Your task to perform on an android device: turn off picture-in-picture Image 0: 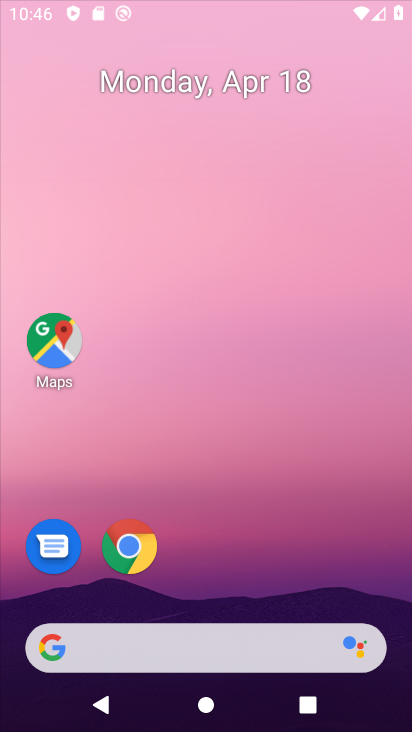
Step 0: click (313, 58)
Your task to perform on an android device: turn off picture-in-picture Image 1: 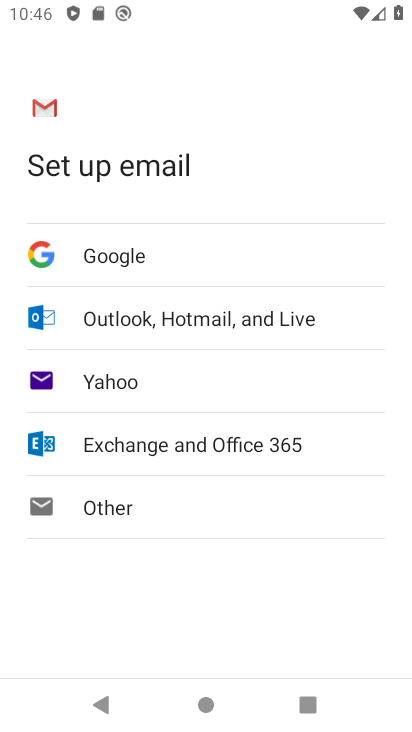
Step 1: press back button
Your task to perform on an android device: turn off picture-in-picture Image 2: 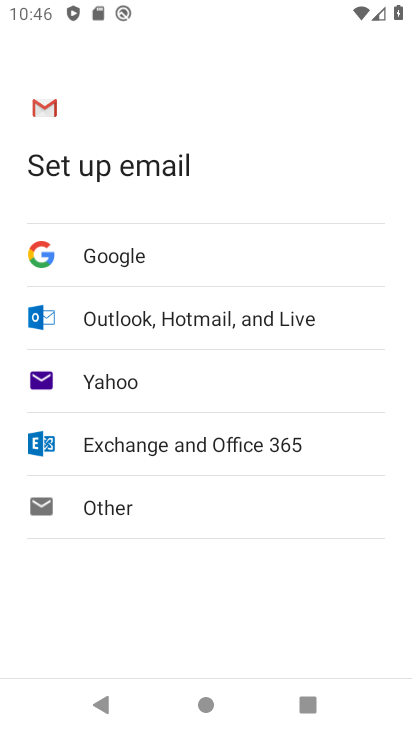
Step 2: press back button
Your task to perform on an android device: turn off picture-in-picture Image 3: 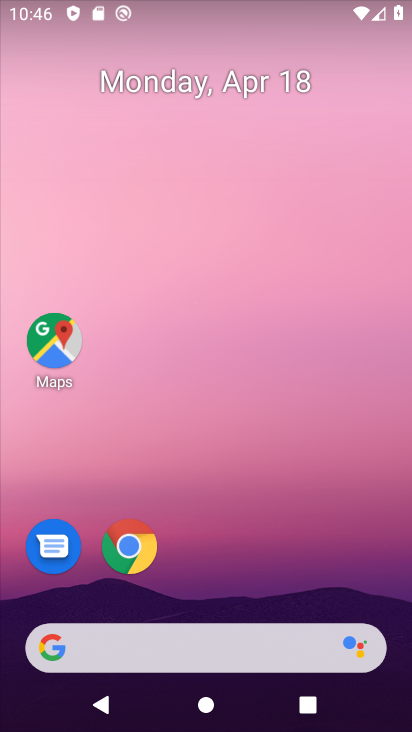
Step 3: drag from (270, 549) to (356, 112)
Your task to perform on an android device: turn off picture-in-picture Image 4: 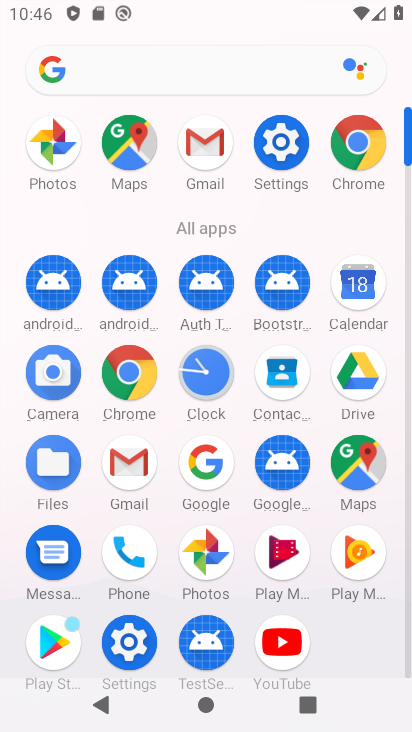
Step 4: click (291, 154)
Your task to perform on an android device: turn off picture-in-picture Image 5: 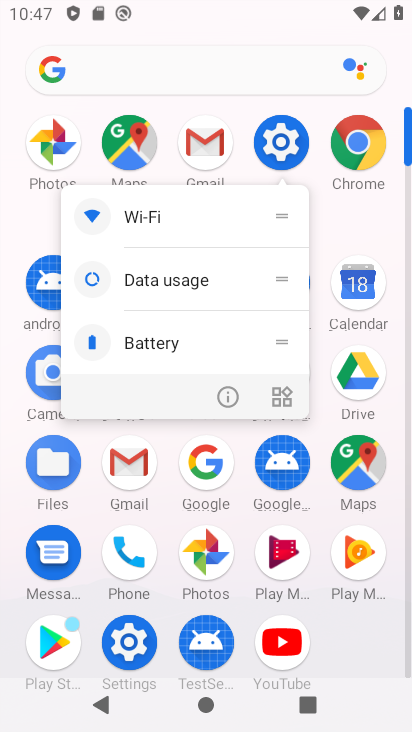
Step 5: click (289, 152)
Your task to perform on an android device: turn off picture-in-picture Image 6: 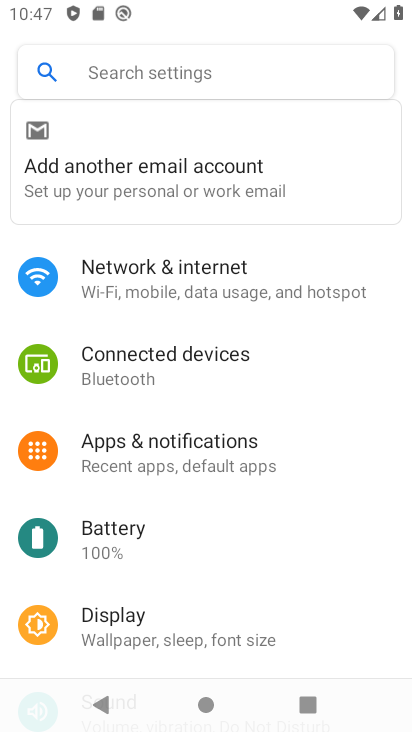
Step 6: drag from (189, 529) to (262, 242)
Your task to perform on an android device: turn off picture-in-picture Image 7: 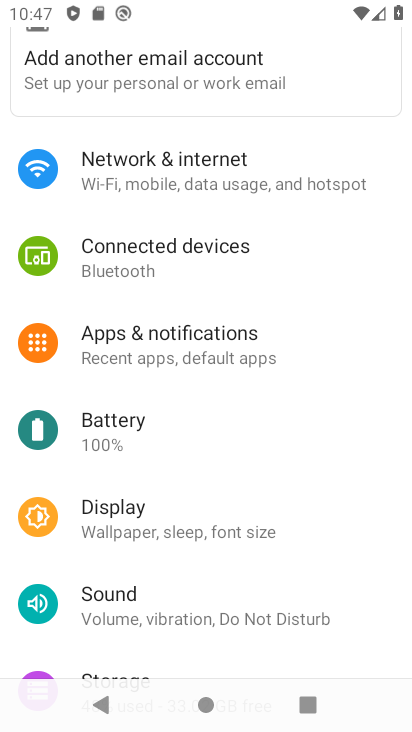
Step 7: drag from (258, 406) to (295, 257)
Your task to perform on an android device: turn off picture-in-picture Image 8: 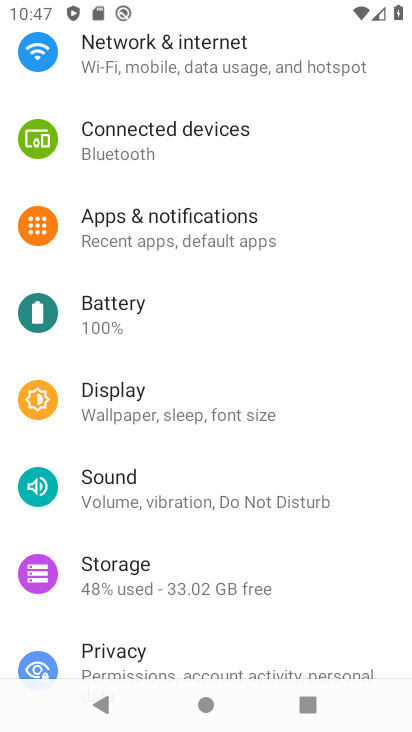
Step 8: drag from (236, 564) to (268, 388)
Your task to perform on an android device: turn off picture-in-picture Image 9: 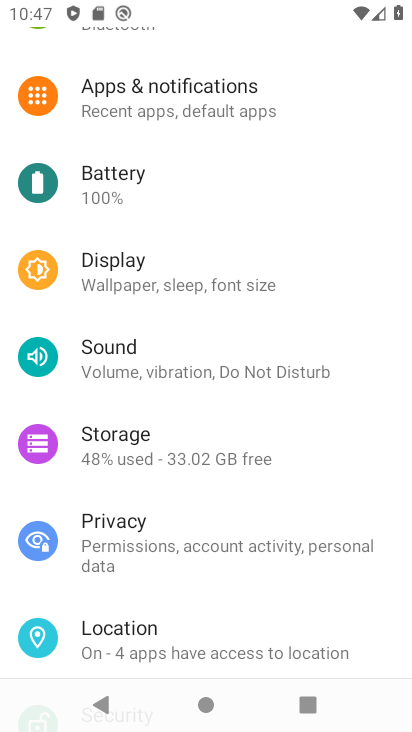
Step 9: drag from (247, 564) to (275, 283)
Your task to perform on an android device: turn off picture-in-picture Image 10: 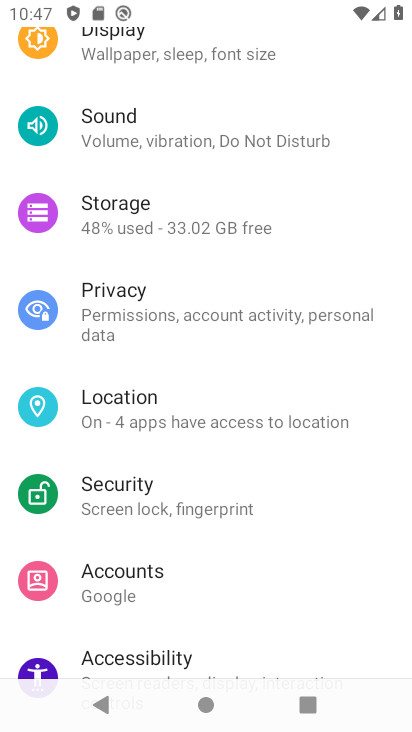
Step 10: drag from (220, 561) to (262, 377)
Your task to perform on an android device: turn off picture-in-picture Image 11: 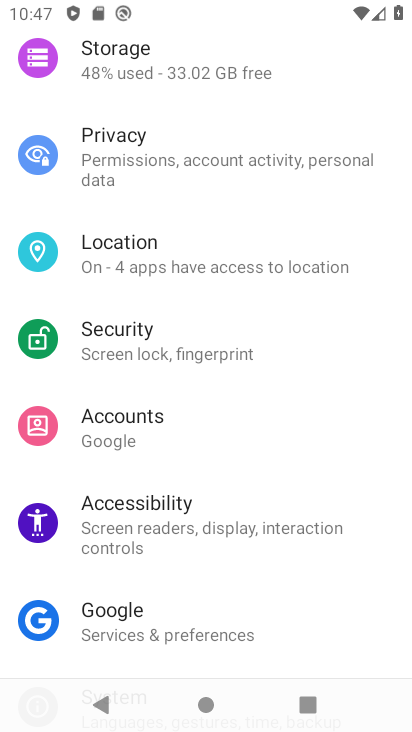
Step 11: drag from (220, 562) to (288, 272)
Your task to perform on an android device: turn off picture-in-picture Image 12: 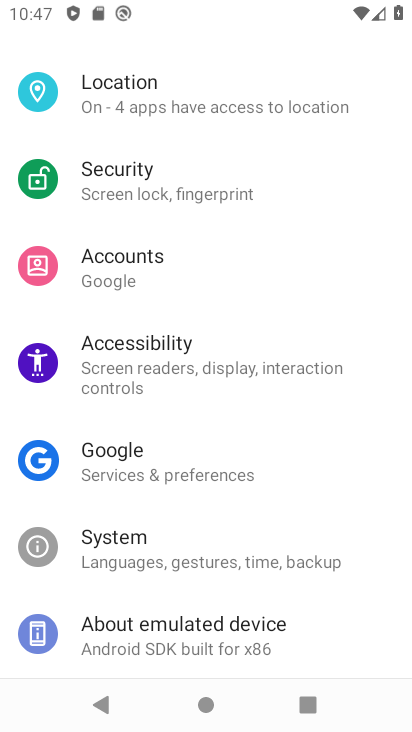
Step 12: drag from (261, 422) to (238, 624)
Your task to perform on an android device: turn off picture-in-picture Image 13: 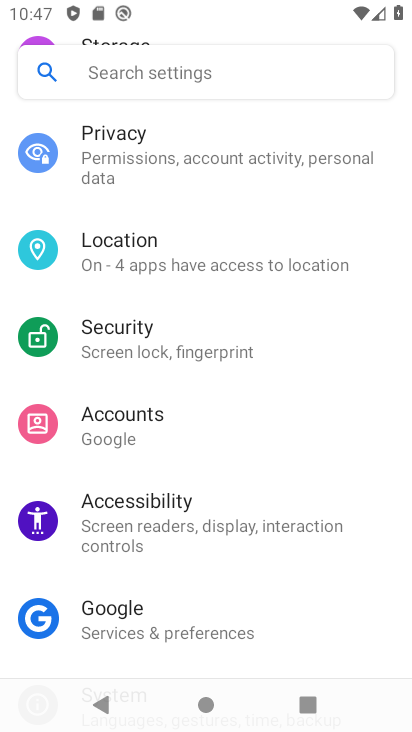
Step 13: drag from (262, 288) to (263, 630)
Your task to perform on an android device: turn off picture-in-picture Image 14: 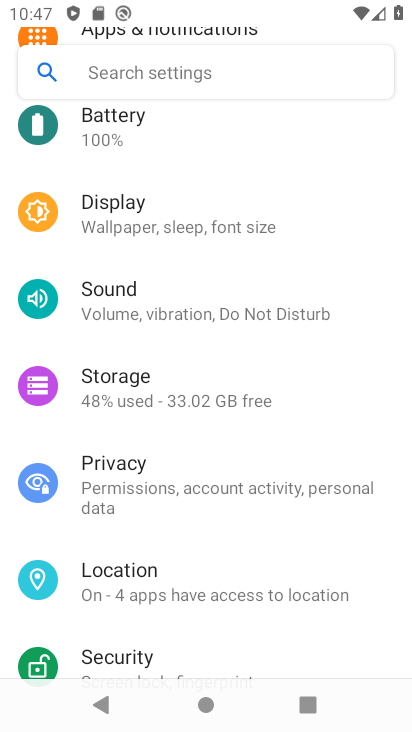
Step 14: drag from (299, 311) to (288, 604)
Your task to perform on an android device: turn off picture-in-picture Image 15: 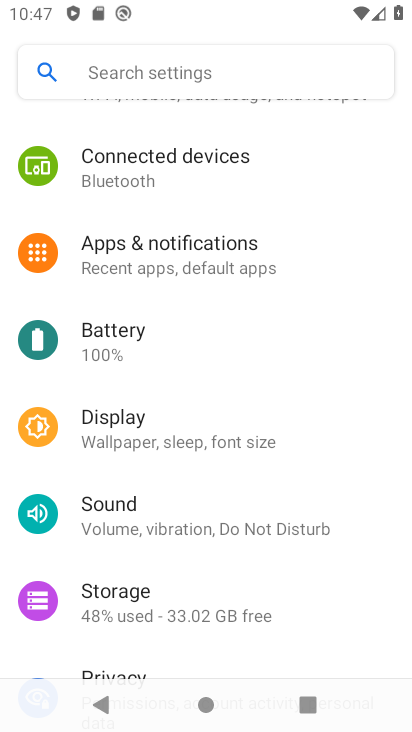
Step 15: click (291, 240)
Your task to perform on an android device: turn off picture-in-picture Image 16: 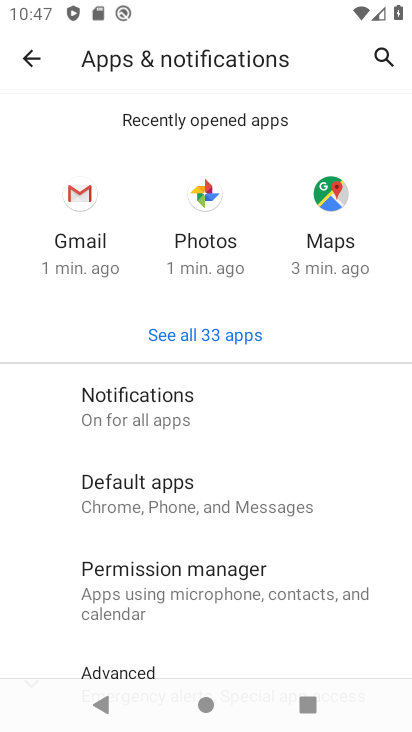
Step 16: click (243, 656)
Your task to perform on an android device: turn off picture-in-picture Image 17: 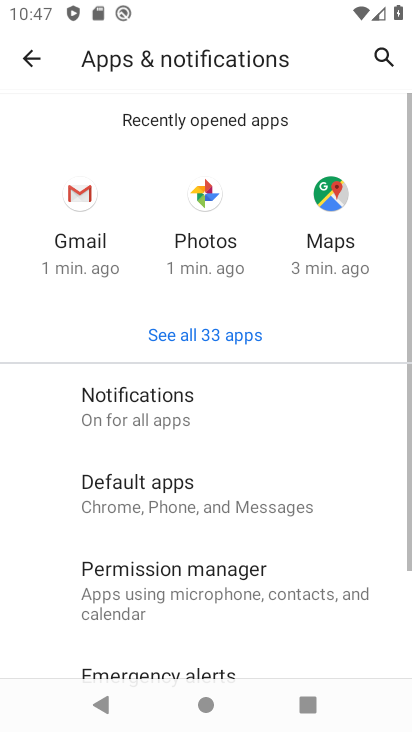
Step 17: drag from (257, 615) to (285, 151)
Your task to perform on an android device: turn off picture-in-picture Image 18: 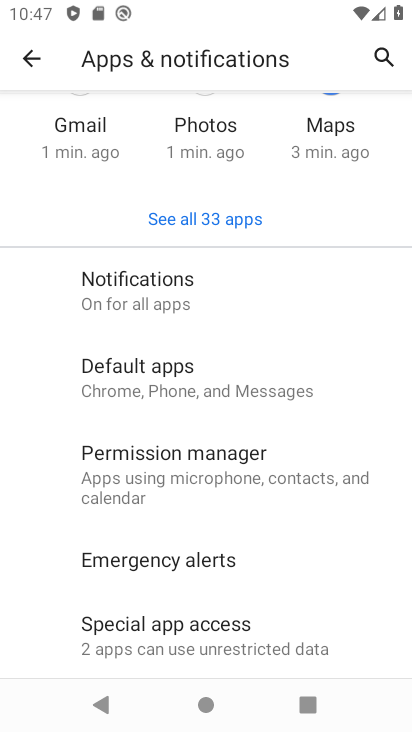
Step 18: click (221, 661)
Your task to perform on an android device: turn off picture-in-picture Image 19: 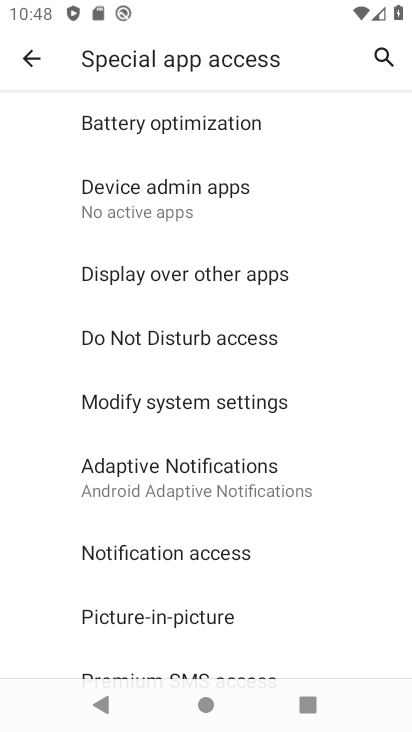
Step 19: drag from (242, 619) to (268, 558)
Your task to perform on an android device: turn off picture-in-picture Image 20: 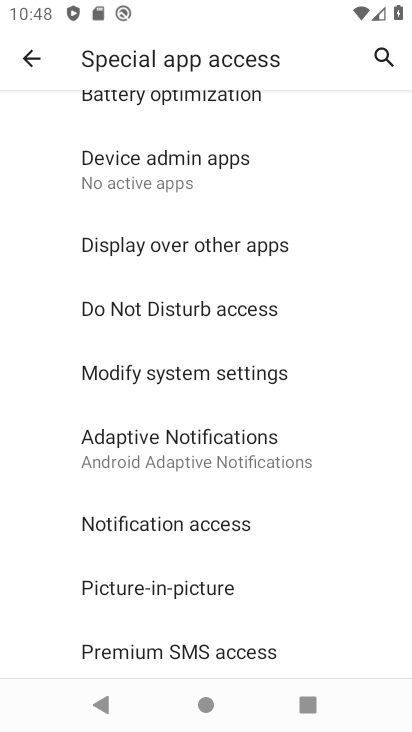
Step 20: click (258, 569)
Your task to perform on an android device: turn off picture-in-picture Image 21: 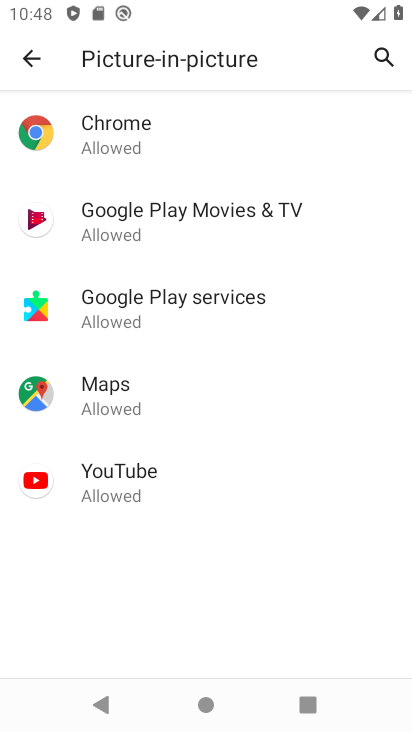
Step 21: click (240, 128)
Your task to perform on an android device: turn off picture-in-picture Image 22: 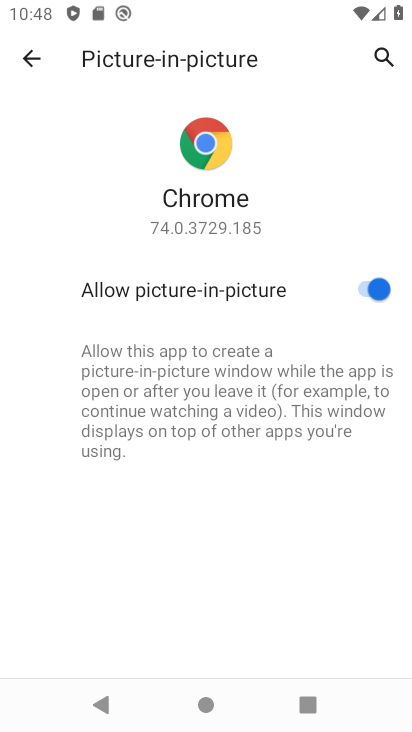
Step 22: click (336, 296)
Your task to perform on an android device: turn off picture-in-picture Image 23: 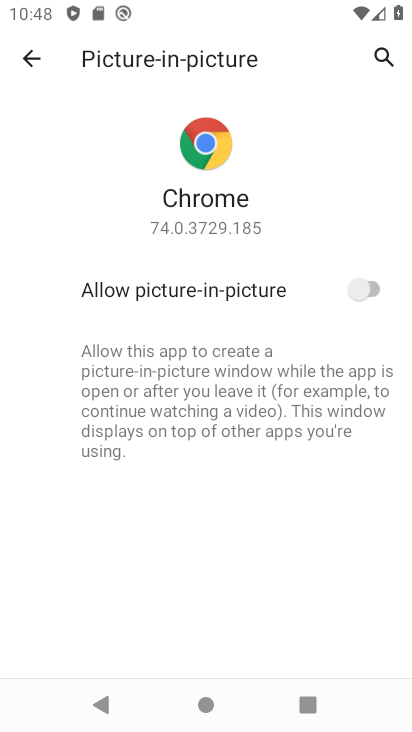
Step 23: task complete